Your task to perform on an android device: When is my next meeting? Image 0: 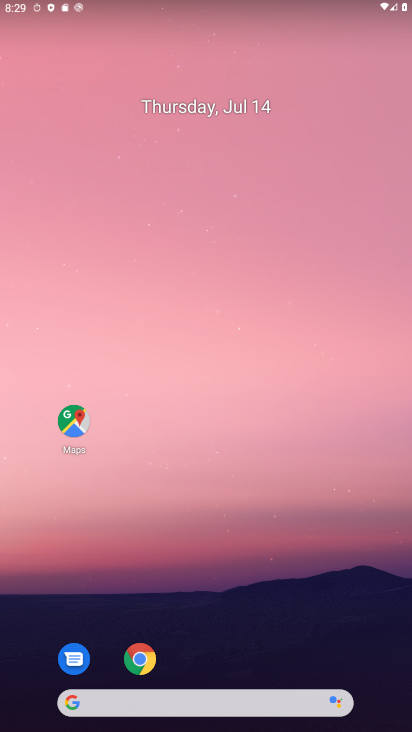
Step 0: press home button
Your task to perform on an android device: When is my next meeting? Image 1: 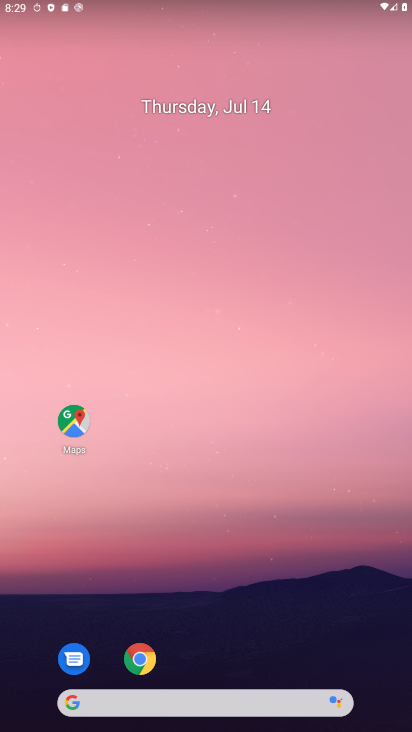
Step 1: drag from (225, 673) to (36, 36)
Your task to perform on an android device: When is my next meeting? Image 2: 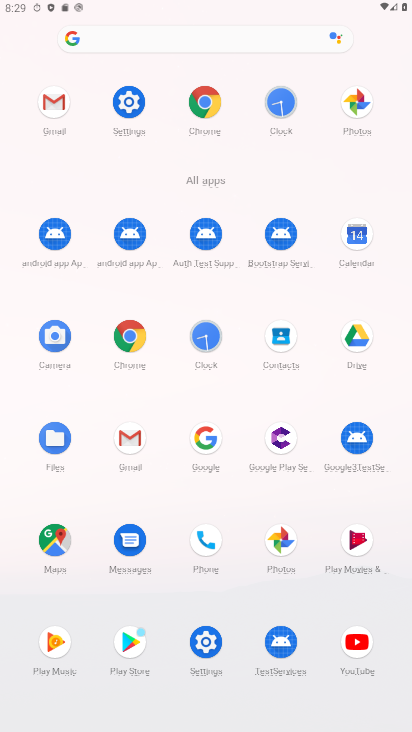
Step 2: click (366, 244)
Your task to perform on an android device: When is my next meeting? Image 3: 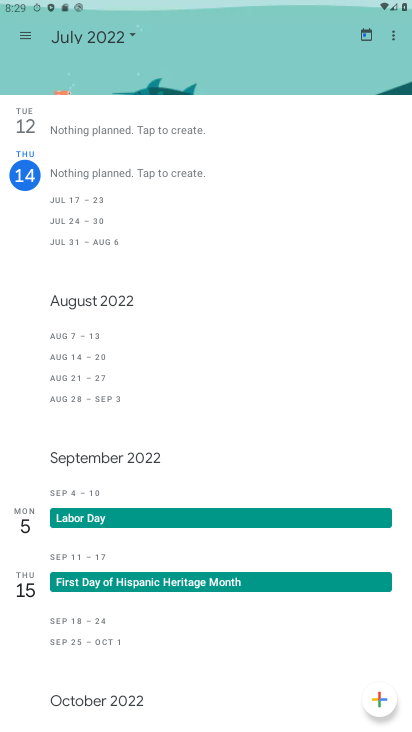
Step 3: click (19, 168)
Your task to perform on an android device: When is my next meeting? Image 4: 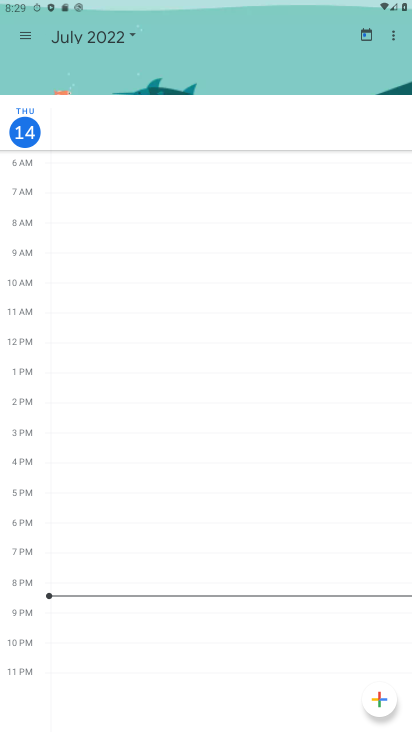
Step 4: click (363, 35)
Your task to perform on an android device: When is my next meeting? Image 5: 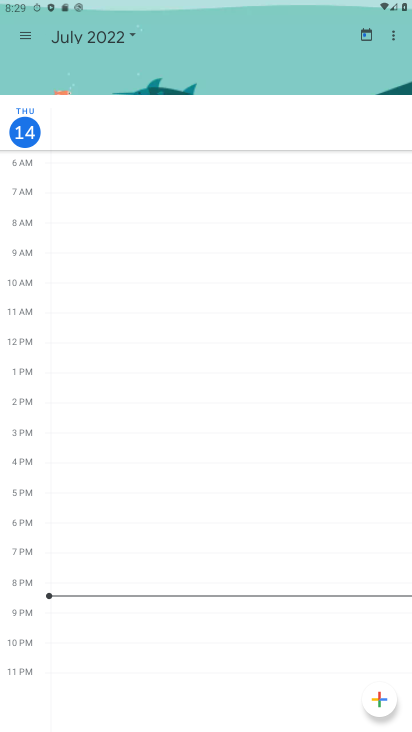
Step 5: click (363, 39)
Your task to perform on an android device: When is my next meeting? Image 6: 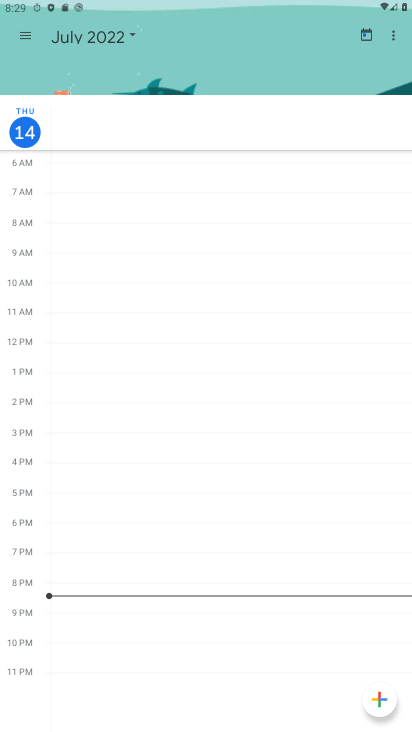
Step 6: click (363, 39)
Your task to perform on an android device: When is my next meeting? Image 7: 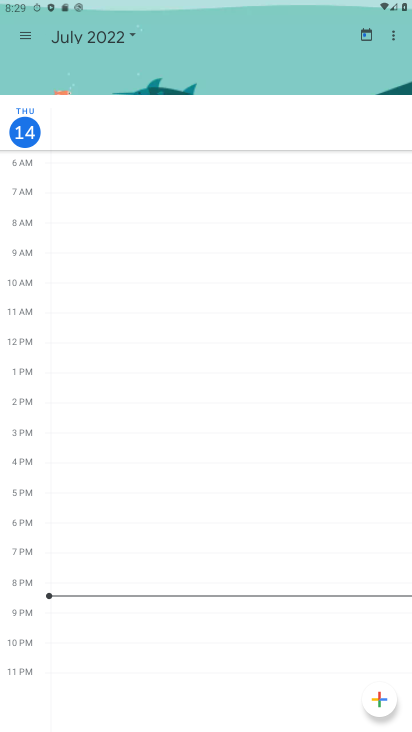
Step 7: click (363, 39)
Your task to perform on an android device: When is my next meeting? Image 8: 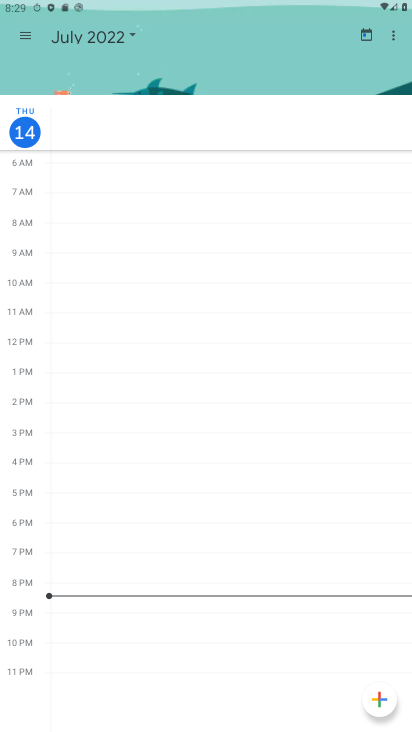
Step 8: click (17, 37)
Your task to perform on an android device: When is my next meeting? Image 9: 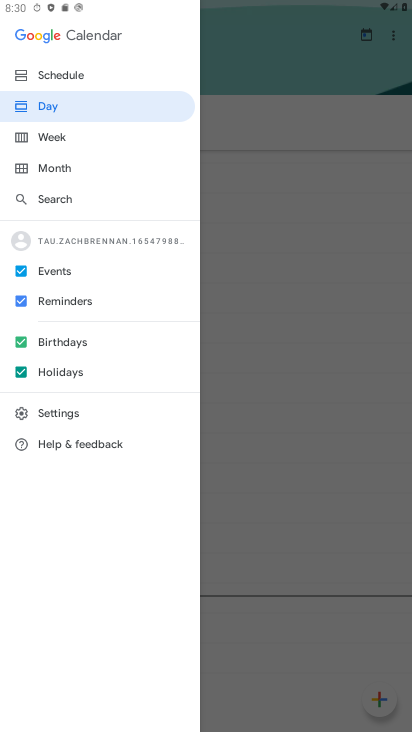
Step 9: click (257, 53)
Your task to perform on an android device: When is my next meeting? Image 10: 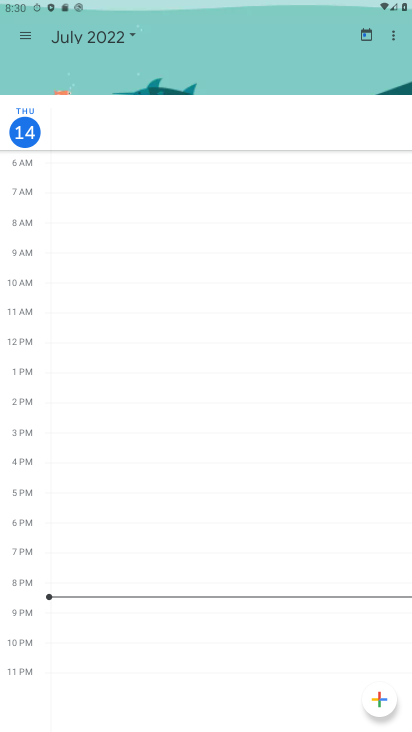
Step 10: click (58, 28)
Your task to perform on an android device: When is my next meeting? Image 11: 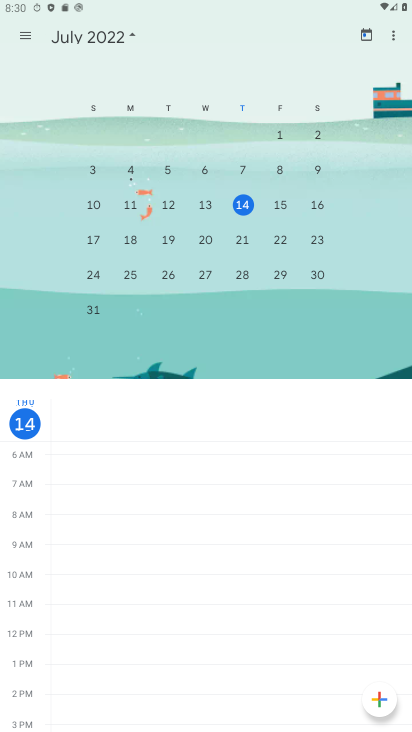
Step 11: click (286, 207)
Your task to perform on an android device: When is my next meeting? Image 12: 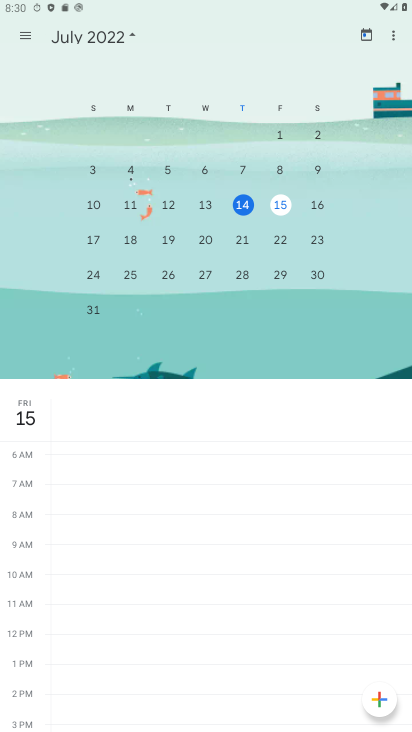
Step 12: click (321, 212)
Your task to perform on an android device: When is my next meeting? Image 13: 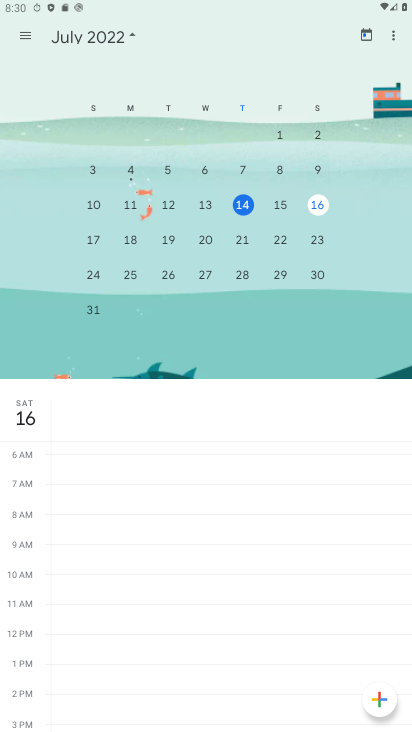
Step 13: click (90, 244)
Your task to perform on an android device: When is my next meeting? Image 14: 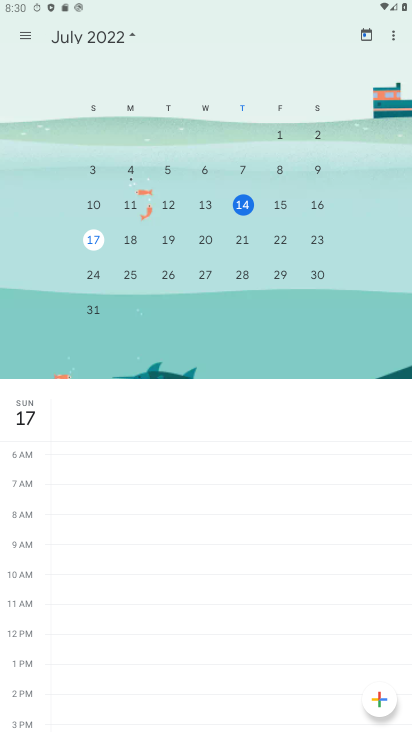
Step 14: click (133, 243)
Your task to perform on an android device: When is my next meeting? Image 15: 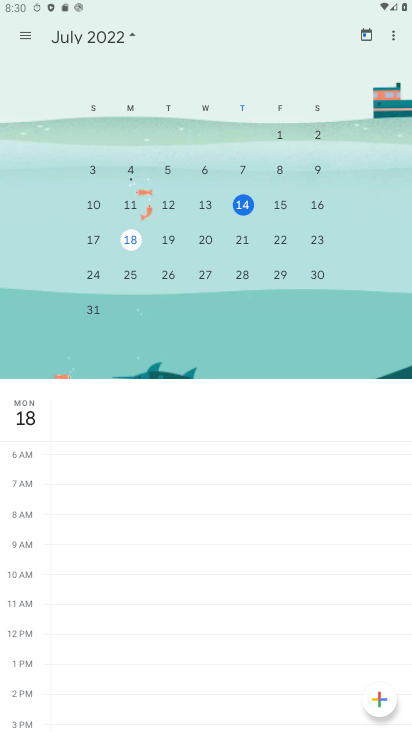
Step 15: click (167, 237)
Your task to perform on an android device: When is my next meeting? Image 16: 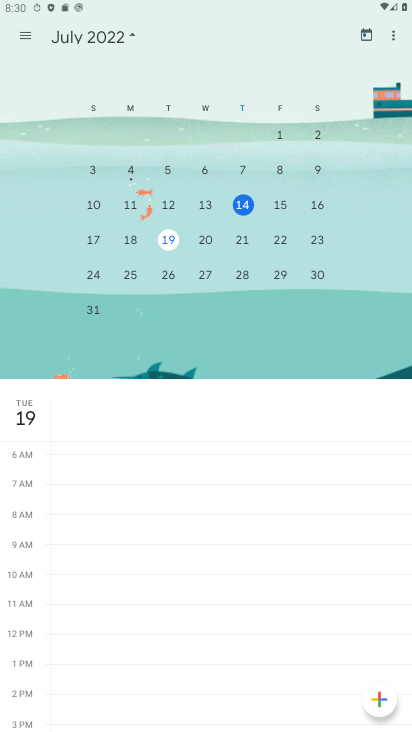
Step 16: click (205, 242)
Your task to perform on an android device: When is my next meeting? Image 17: 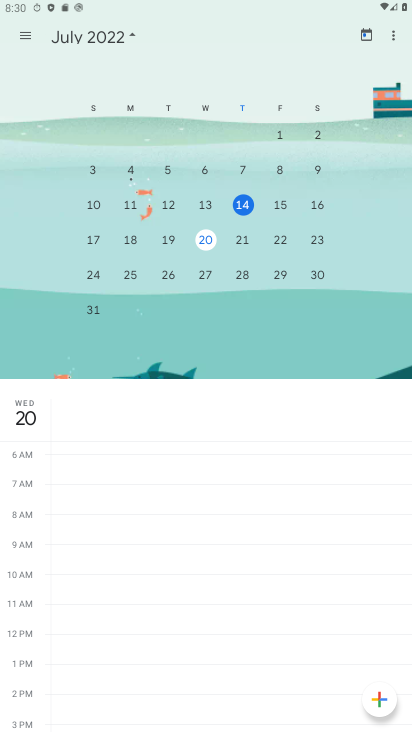
Step 17: click (247, 239)
Your task to perform on an android device: When is my next meeting? Image 18: 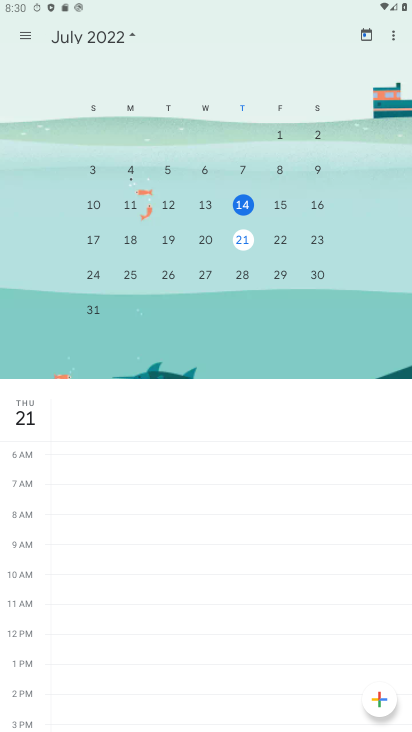
Step 18: click (285, 232)
Your task to perform on an android device: When is my next meeting? Image 19: 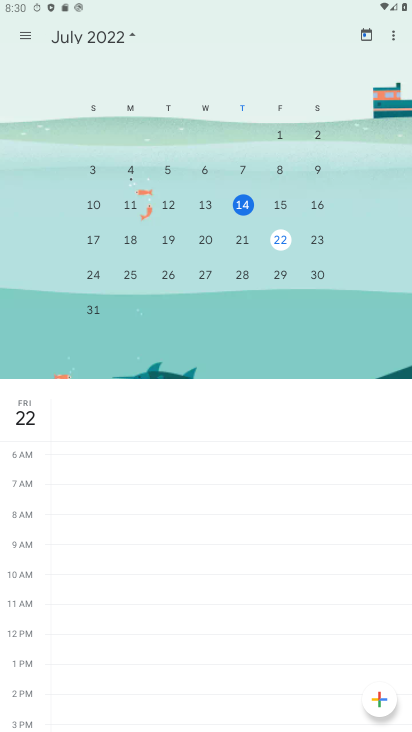
Step 19: click (311, 239)
Your task to perform on an android device: When is my next meeting? Image 20: 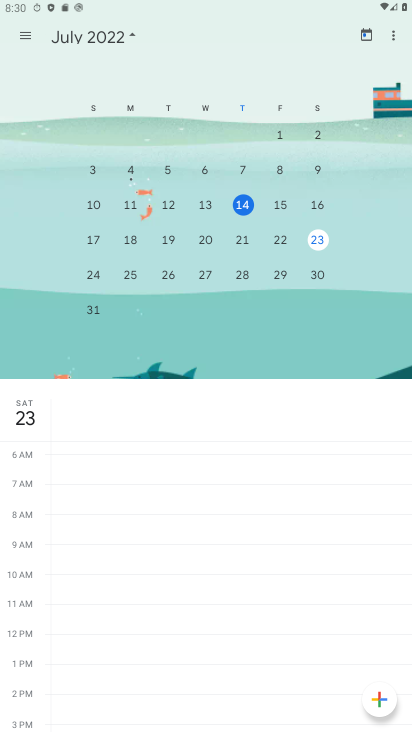
Step 20: click (85, 274)
Your task to perform on an android device: When is my next meeting? Image 21: 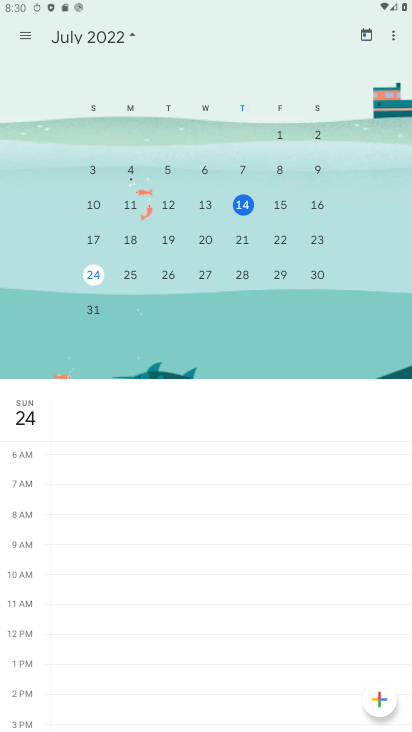
Step 21: click (137, 284)
Your task to perform on an android device: When is my next meeting? Image 22: 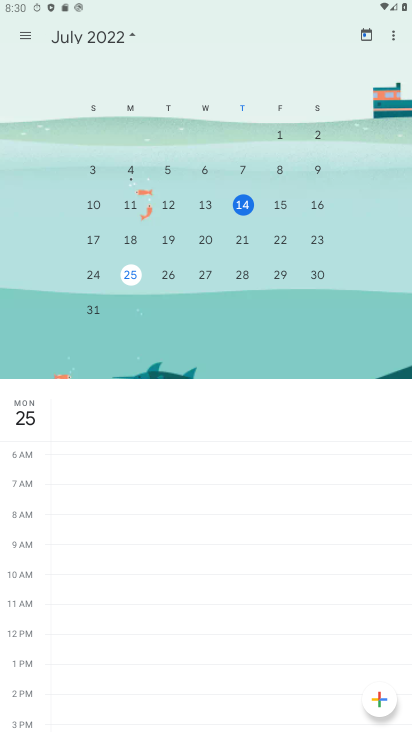
Step 22: click (163, 282)
Your task to perform on an android device: When is my next meeting? Image 23: 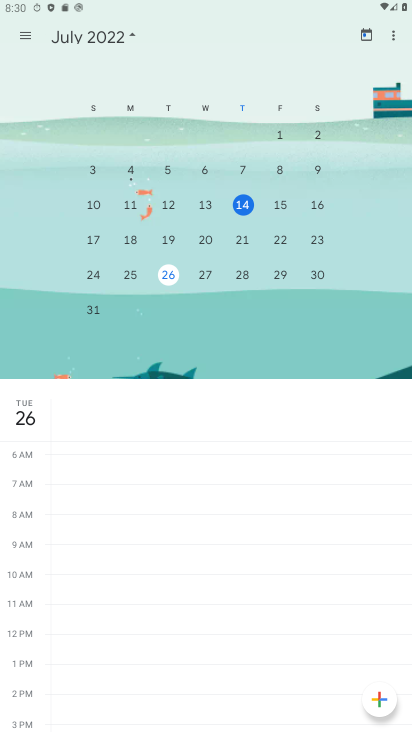
Step 23: click (204, 273)
Your task to perform on an android device: When is my next meeting? Image 24: 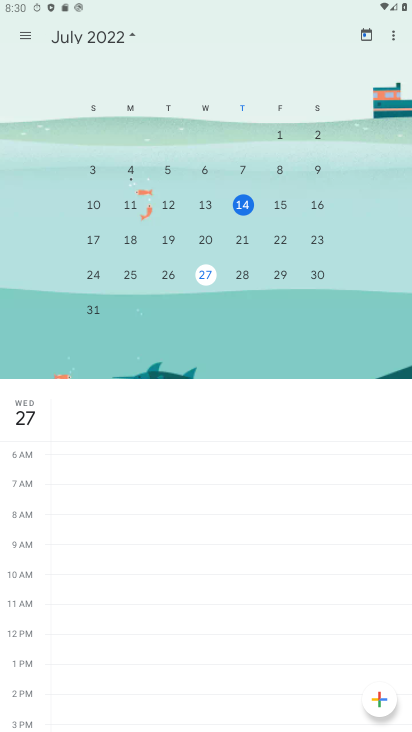
Step 24: click (247, 268)
Your task to perform on an android device: When is my next meeting? Image 25: 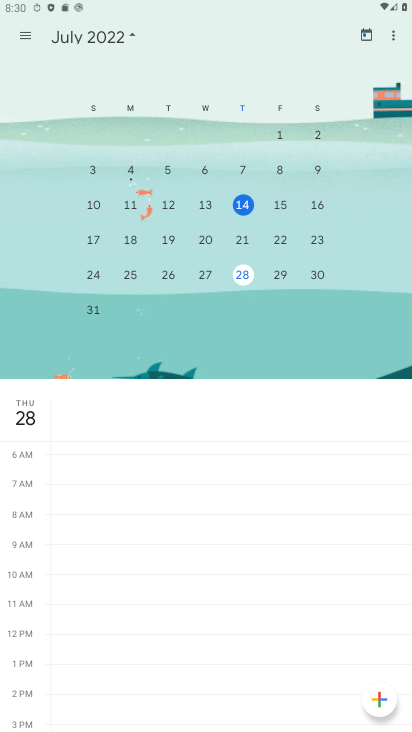
Step 25: click (272, 275)
Your task to perform on an android device: When is my next meeting? Image 26: 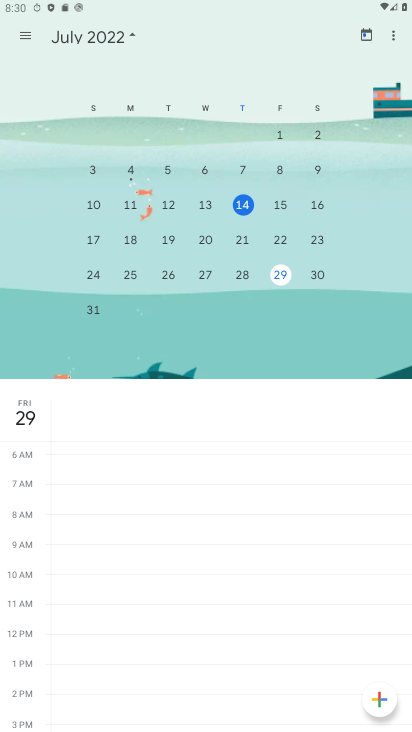
Step 26: click (320, 274)
Your task to perform on an android device: When is my next meeting? Image 27: 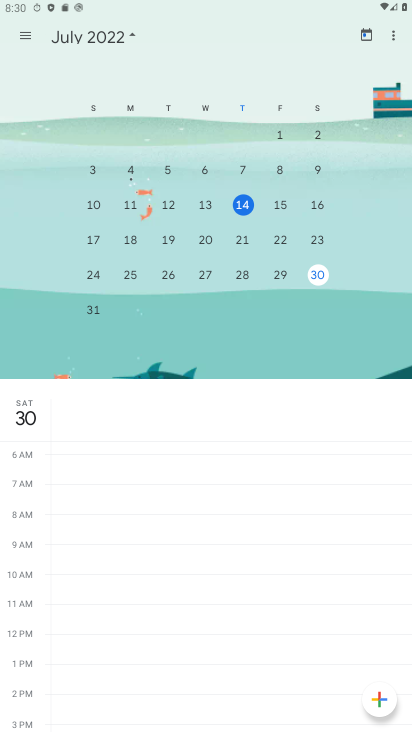
Step 27: click (93, 309)
Your task to perform on an android device: When is my next meeting? Image 28: 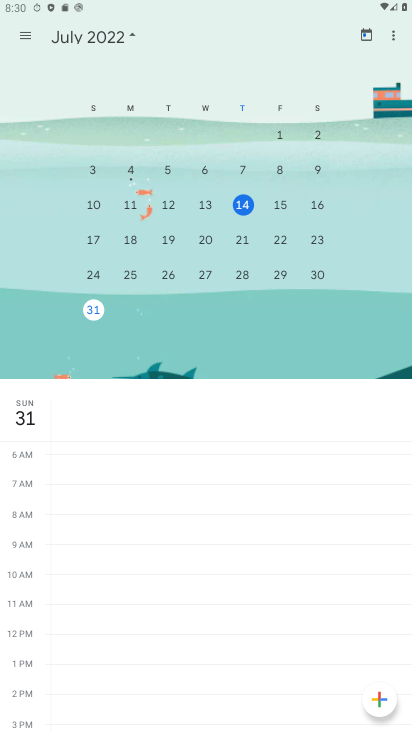
Step 28: task complete